Your task to perform on an android device: Go to Yahoo.com Image 0: 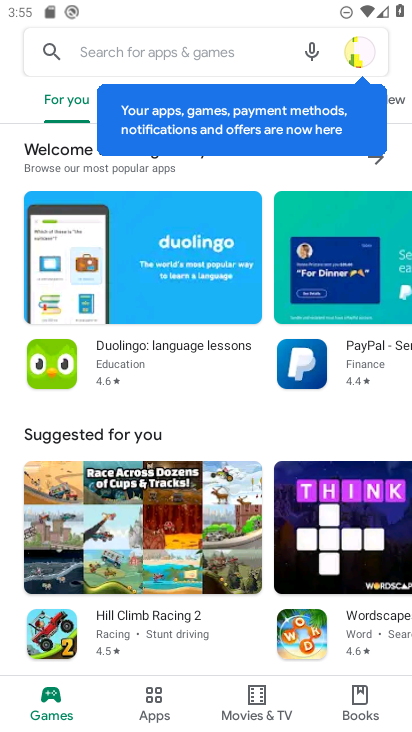
Step 0: press home button
Your task to perform on an android device: Go to Yahoo.com Image 1: 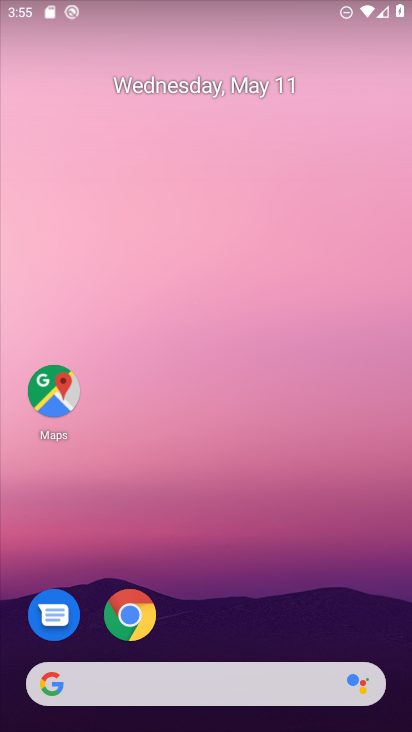
Step 1: click (149, 608)
Your task to perform on an android device: Go to Yahoo.com Image 2: 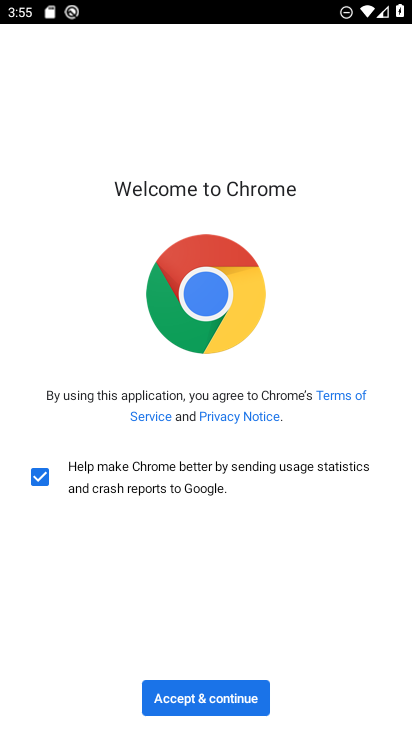
Step 2: click (260, 690)
Your task to perform on an android device: Go to Yahoo.com Image 3: 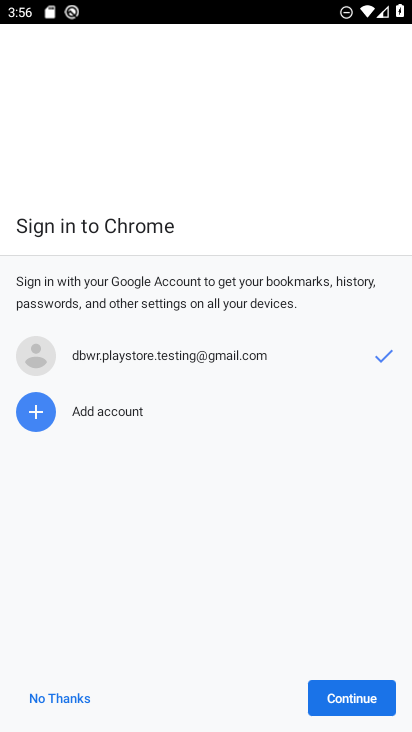
Step 3: click (361, 710)
Your task to perform on an android device: Go to Yahoo.com Image 4: 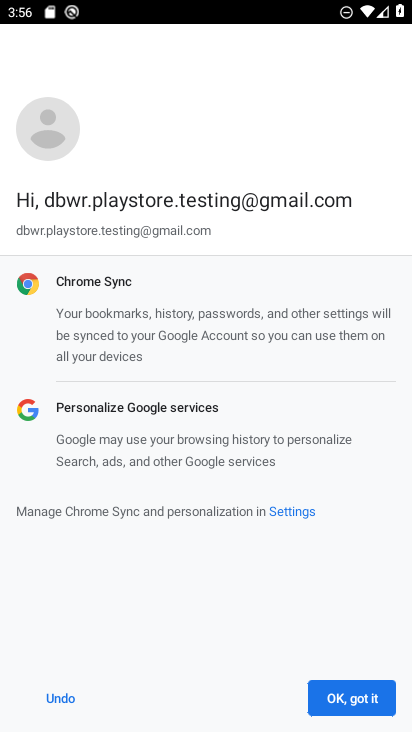
Step 4: click (359, 707)
Your task to perform on an android device: Go to Yahoo.com Image 5: 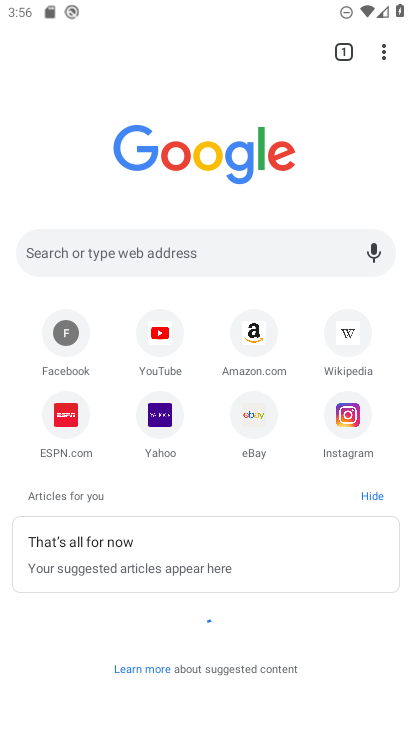
Step 5: click (158, 413)
Your task to perform on an android device: Go to Yahoo.com Image 6: 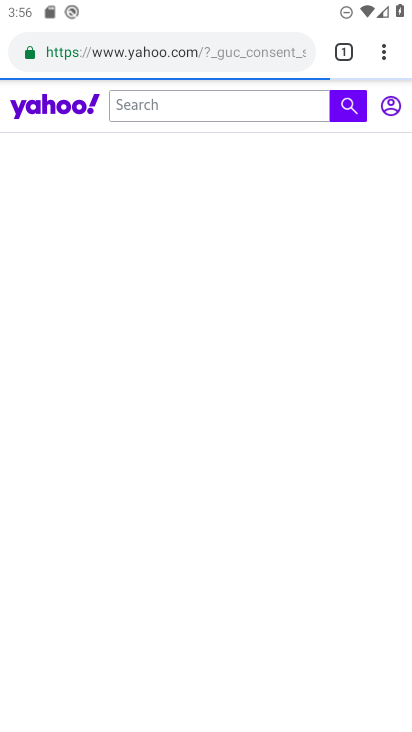
Step 6: task complete